Your task to perform on an android device: Open Google Chrome Image 0: 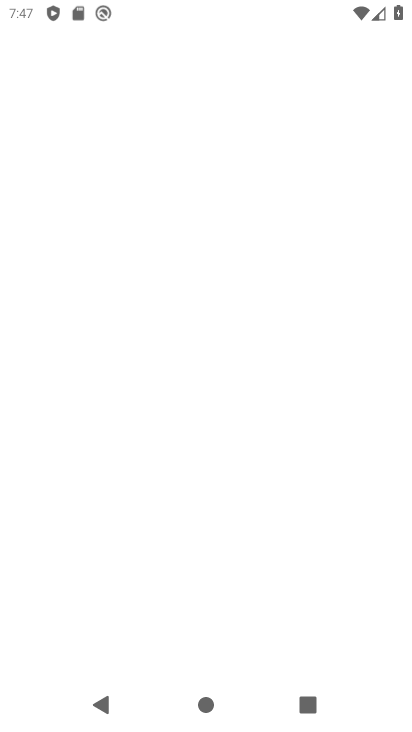
Step 0: press home button
Your task to perform on an android device: Open Google Chrome Image 1: 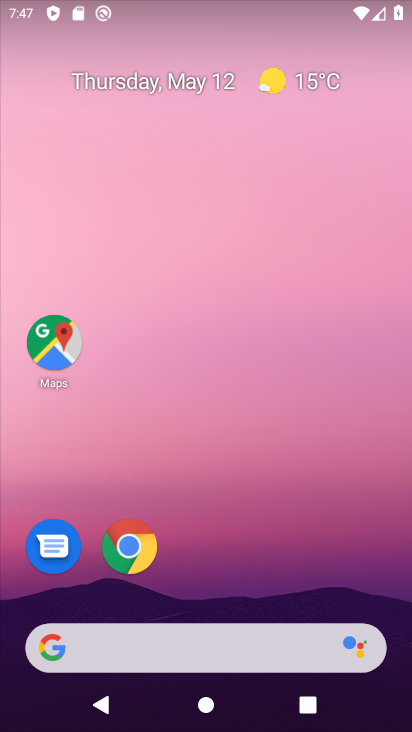
Step 1: click (140, 551)
Your task to perform on an android device: Open Google Chrome Image 2: 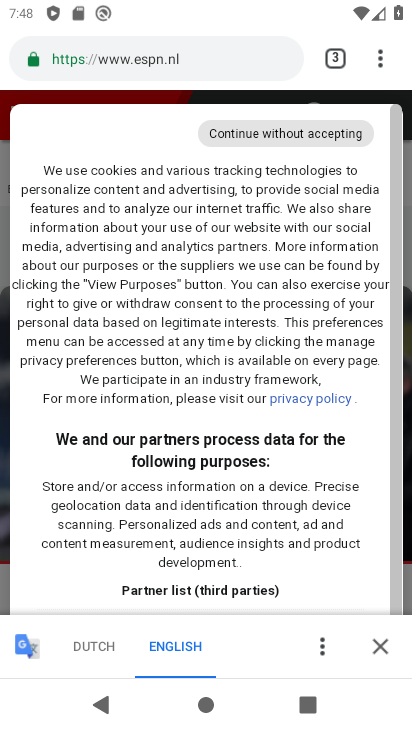
Step 2: task complete